Your task to perform on an android device: Open the Play Movies app and select the watchlist tab. Image 0: 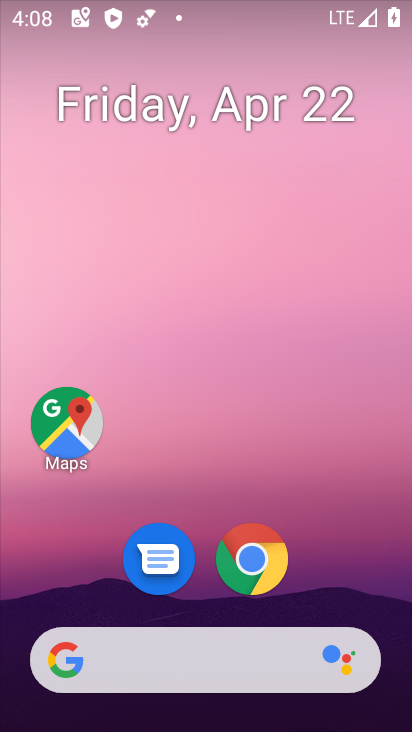
Step 0: drag from (312, 543) to (239, 13)
Your task to perform on an android device: Open the Play Movies app and select the watchlist tab. Image 1: 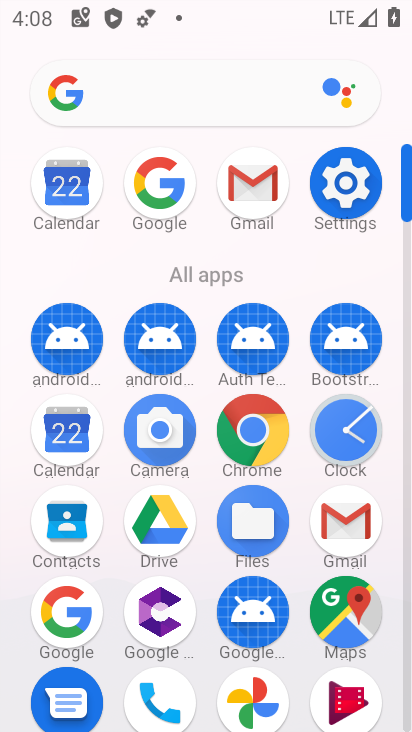
Step 1: click (348, 694)
Your task to perform on an android device: Open the Play Movies app and select the watchlist tab. Image 2: 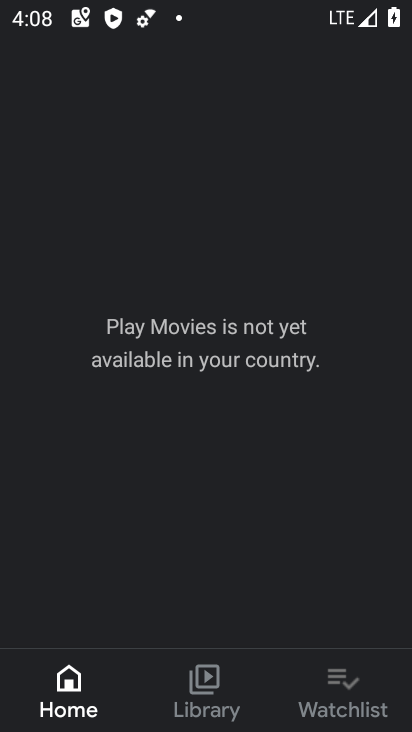
Step 2: click (341, 687)
Your task to perform on an android device: Open the Play Movies app and select the watchlist tab. Image 3: 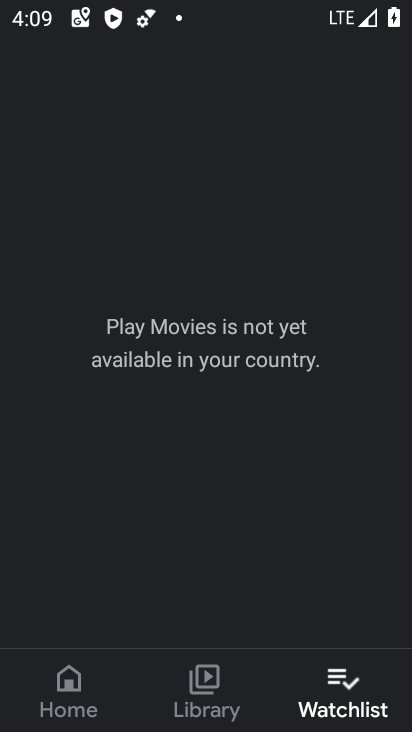
Step 3: task complete